Your task to perform on an android device: Go to Yahoo.com Image 0: 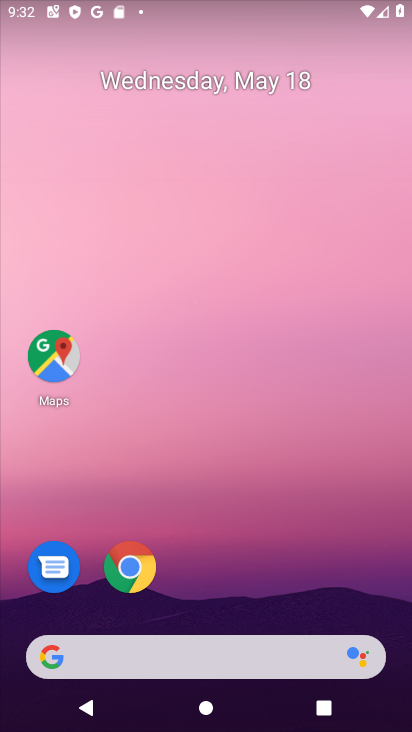
Step 0: click (130, 575)
Your task to perform on an android device: Go to Yahoo.com Image 1: 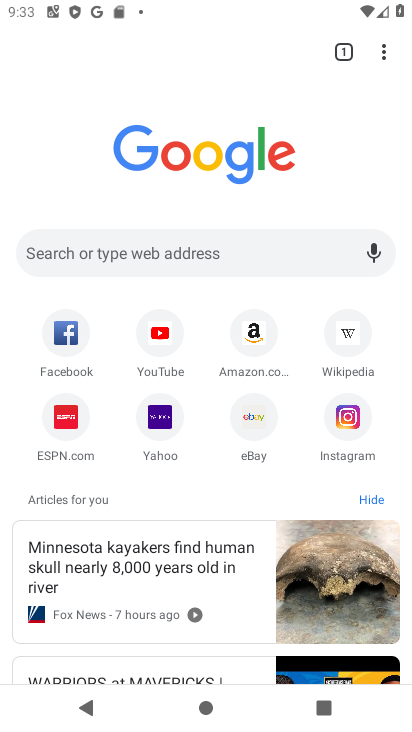
Step 1: click (167, 439)
Your task to perform on an android device: Go to Yahoo.com Image 2: 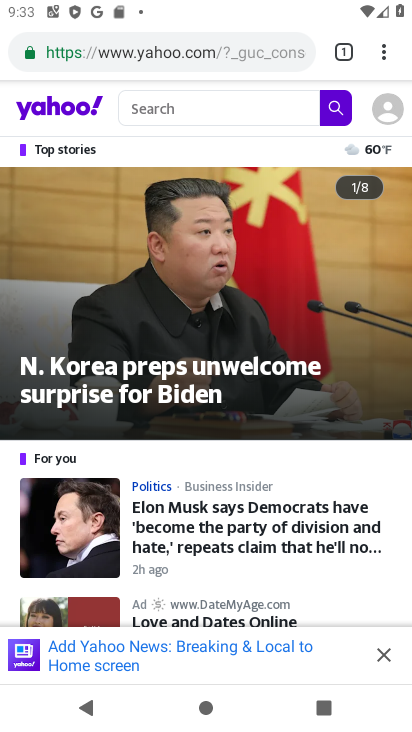
Step 2: task complete